Your task to perform on an android device: Open internet settings Image 0: 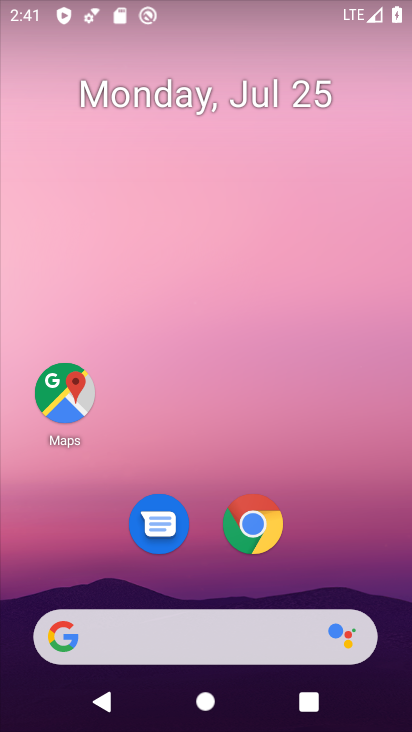
Step 0: drag from (320, 515) to (244, 10)
Your task to perform on an android device: Open internet settings Image 1: 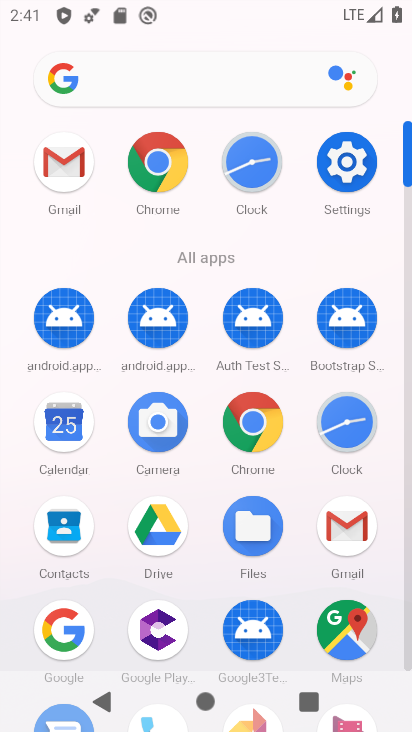
Step 1: click (338, 162)
Your task to perform on an android device: Open internet settings Image 2: 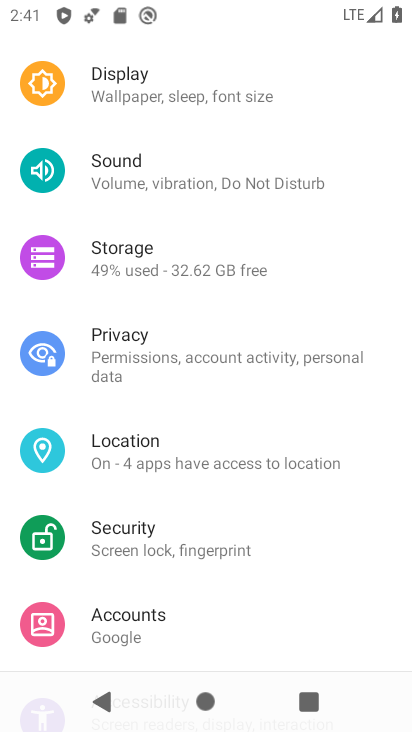
Step 2: drag from (219, 322) to (207, 552)
Your task to perform on an android device: Open internet settings Image 3: 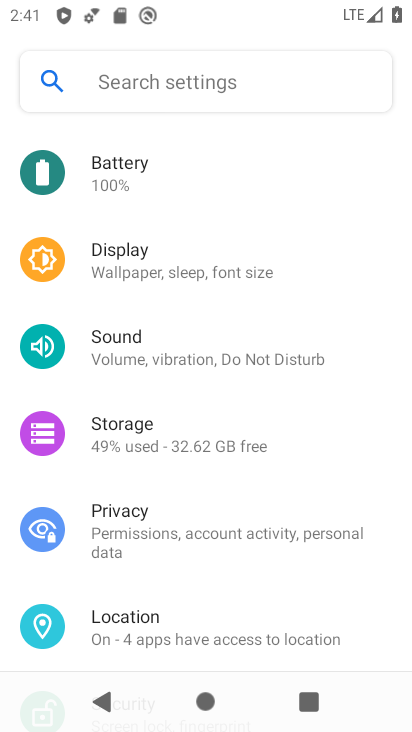
Step 3: drag from (230, 227) to (227, 587)
Your task to perform on an android device: Open internet settings Image 4: 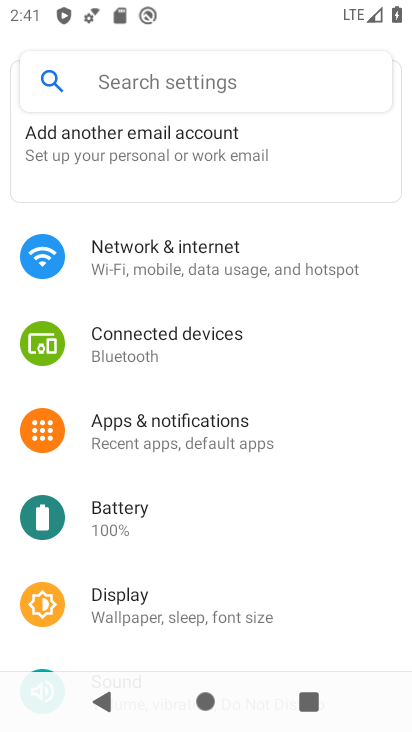
Step 4: click (205, 257)
Your task to perform on an android device: Open internet settings Image 5: 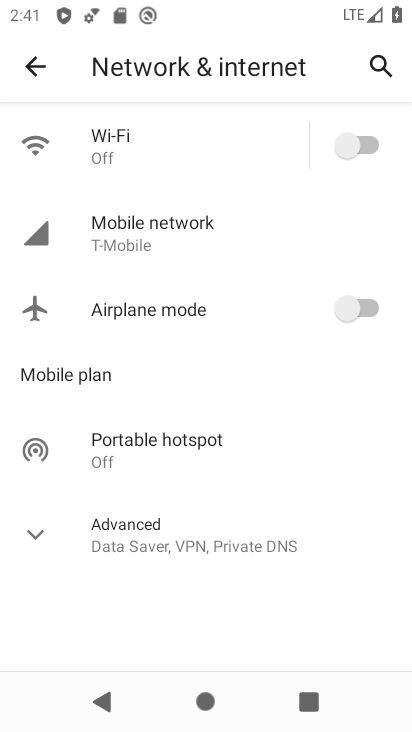
Step 5: task complete